Your task to perform on an android device: open app "Google Calendar" (install if not already installed) Image 0: 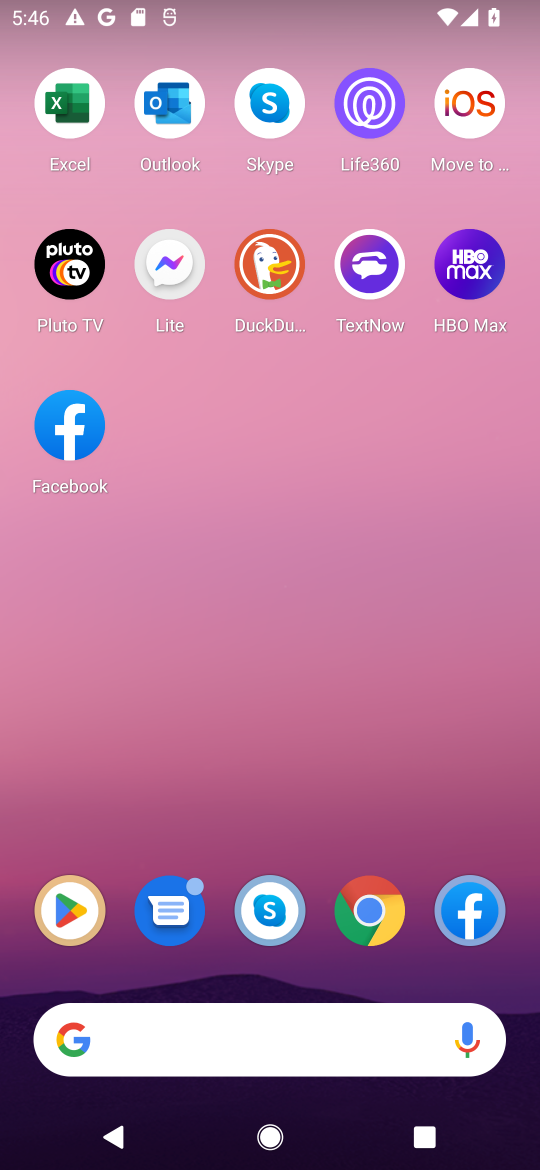
Step 0: drag from (279, 1022) to (212, 177)
Your task to perform on an android device: open app "Google Calendar" (install if not already installed) Image 1: 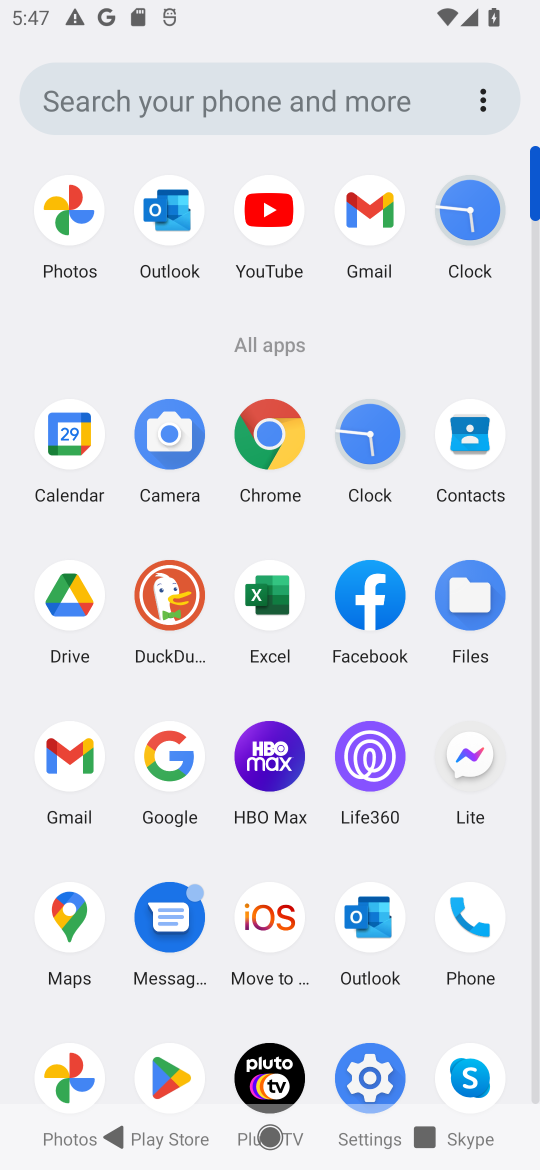
Step 1: click (84, 470)
Your task to perform on an android device: open app "Google Calendar" (install if not already installed) Image 2: 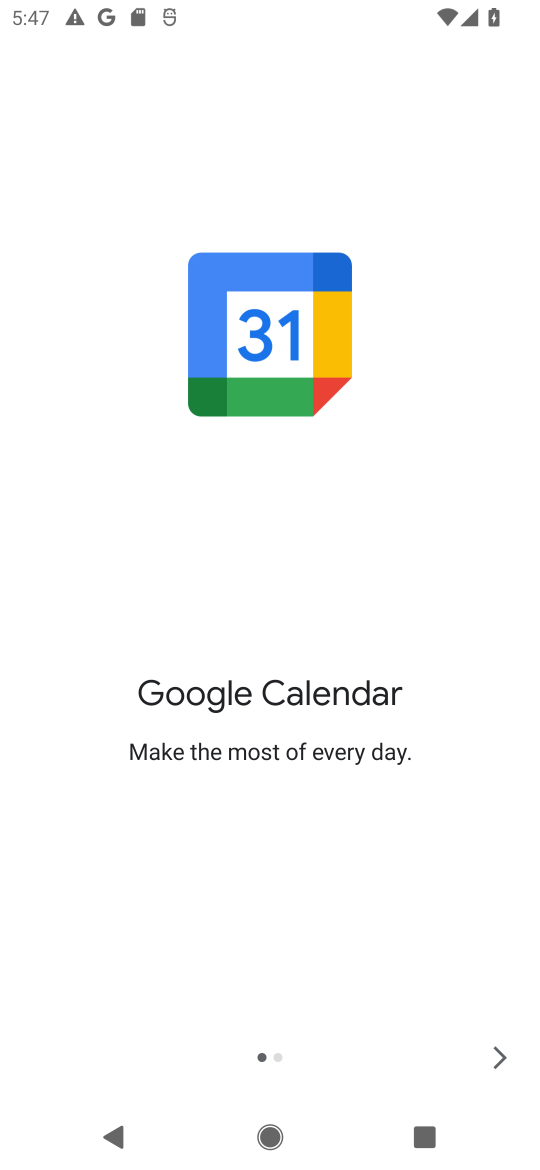
Step 2: click (484, 1062)
Your task to perform on an android device: open app "Google Calendar" (install if not already installed) Image 3: 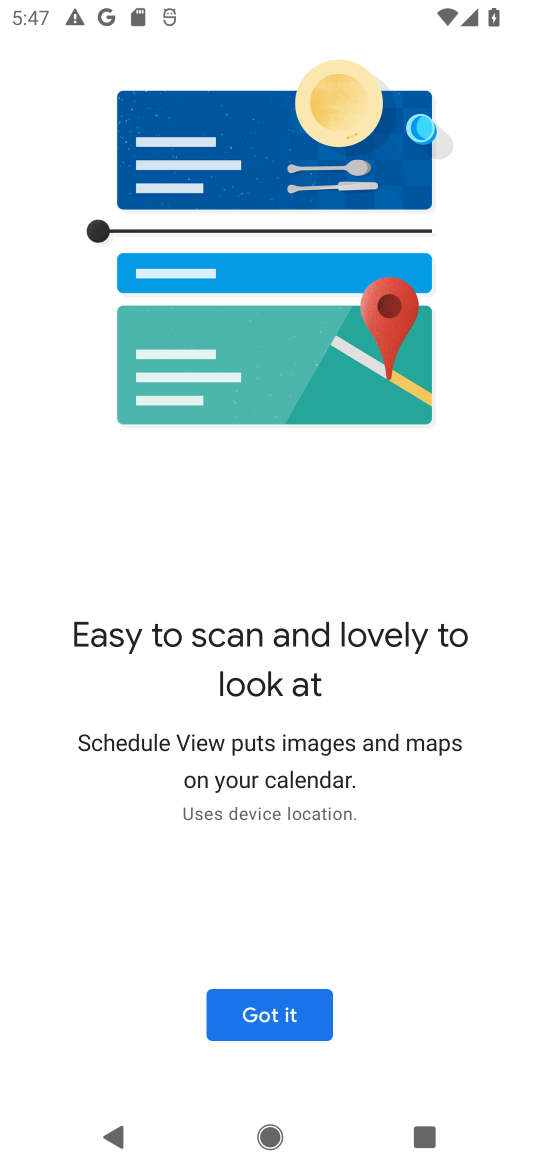
Step 3: click (484, 1062)
Your task to perform on an android device: open app "Google Calendar" (install if not already installed) Image 4: 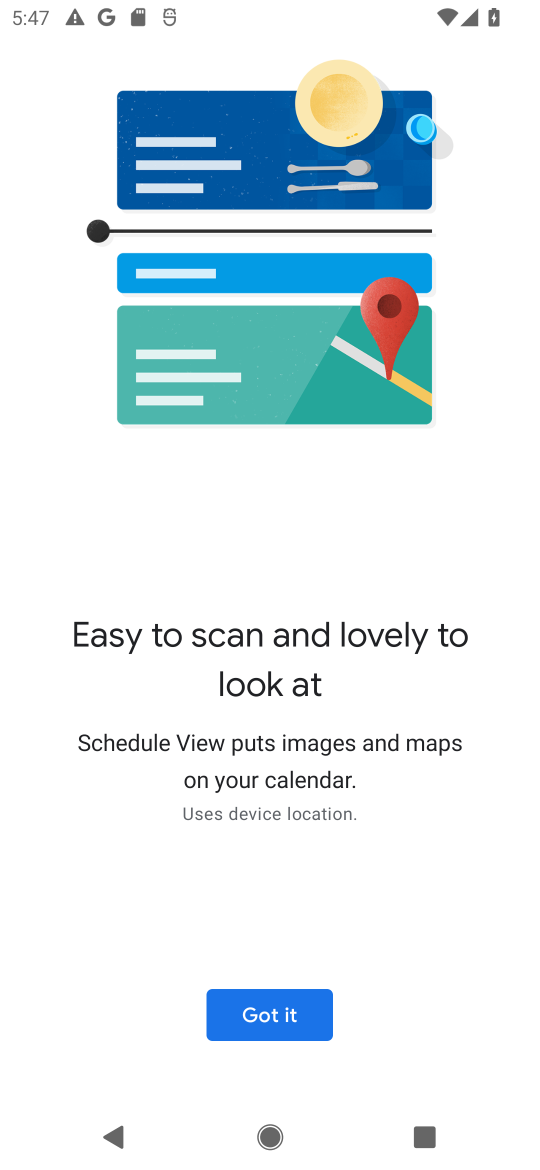
Step 4: click (237, 1020)
Your task to perform on an android device: open app "Google Calendar" (install if not already installed) Image 5: 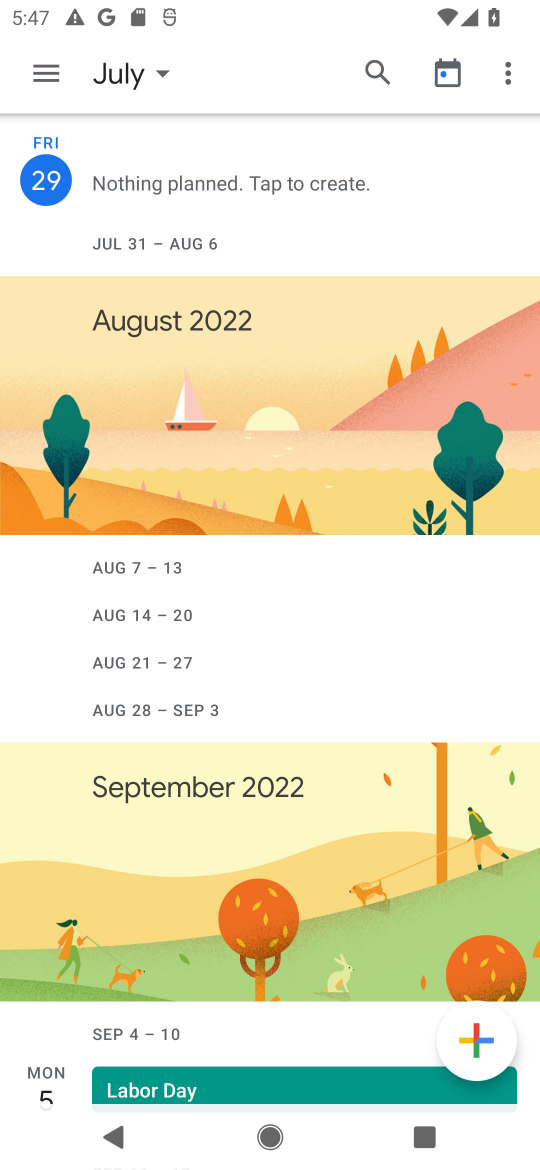
Step 5: task complete